Your task to perform on an android device: Open maps Image 0: 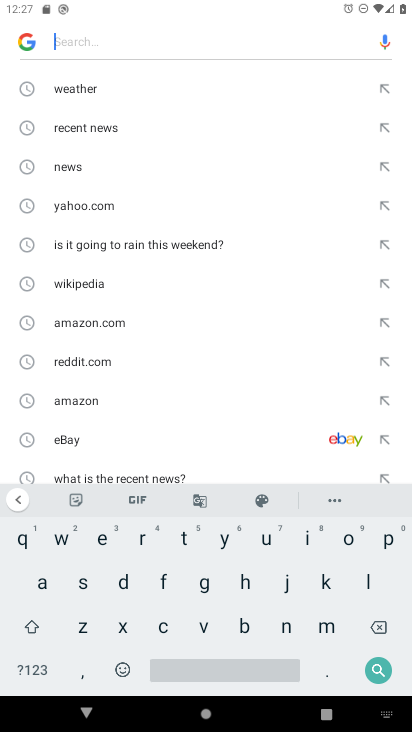
Step 0: press home button
Your task to perform on an android device: Open maps Image 1: 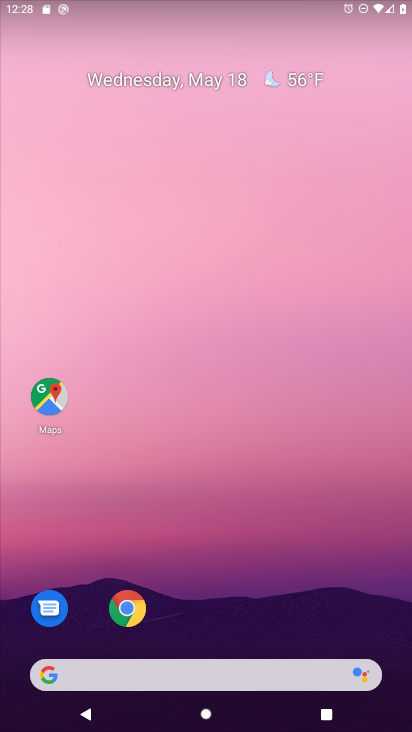
Step 1: drag from (272, 695) to (346, 132)
Your task to perform on an android device: Open maps Image 2: 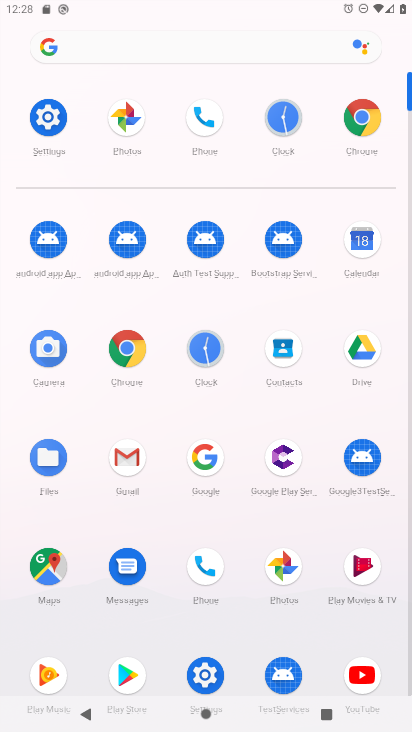
Step 2: click (62, 585)
Your task to perform on an android device: Open maps Image 3: 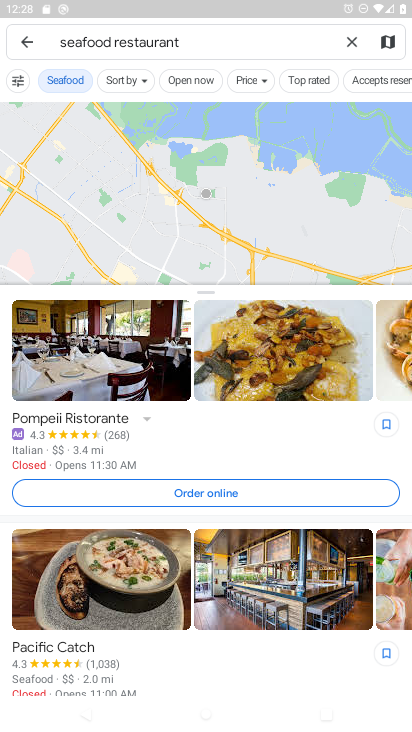
Step 3: press home button
Your task to perform on an android device: Open maps Image 4: 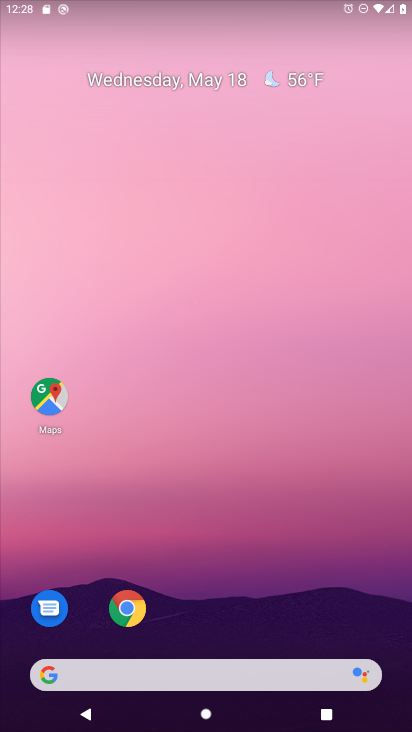
Step 4: drag from (254, 705) to (279, 283)
Your task to perform on an android device: Open maps Image 5: 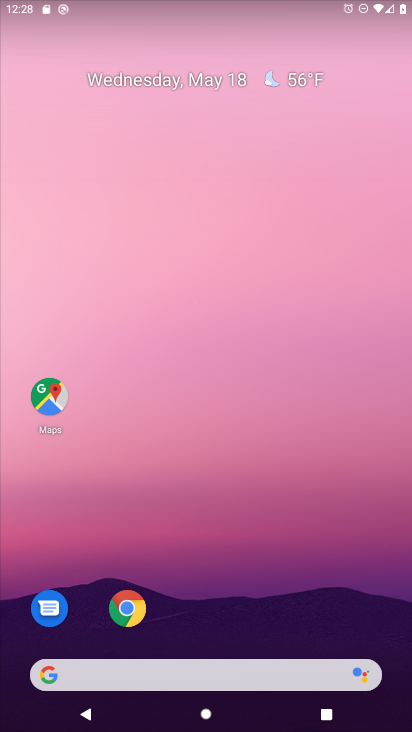
Step 5: click (63, 391)
Your task to perform on an android device: Open maps Image 6: 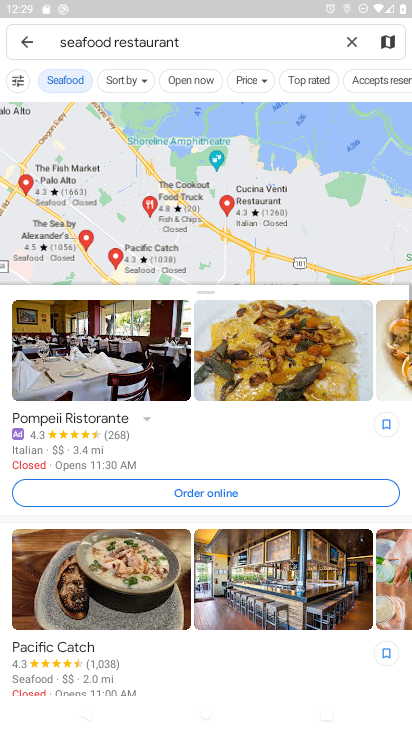
Step 6: click (31, 47)
Your task to perform on an android device: Open maps Image 7: 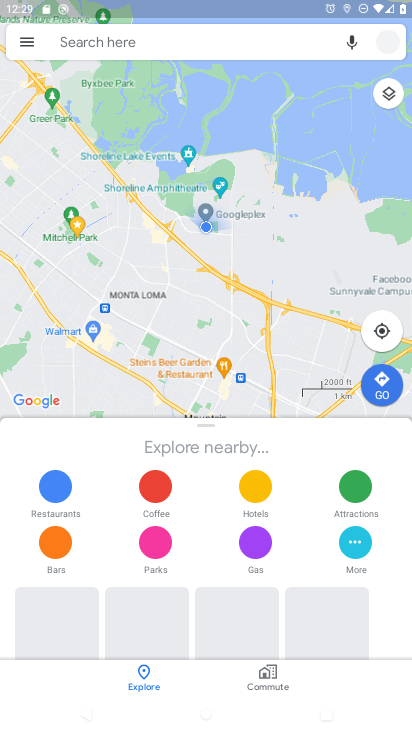
Step 7: task complete